Your task to perform on an android device: Go to sound settings Image 0: 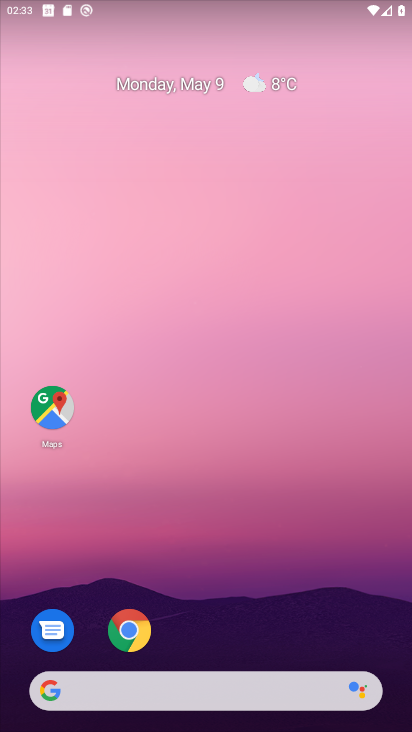
Step 0: drag from (227, 640) to (278, 0)
Your task to perform on an android device: Go to sound settings Image 1: 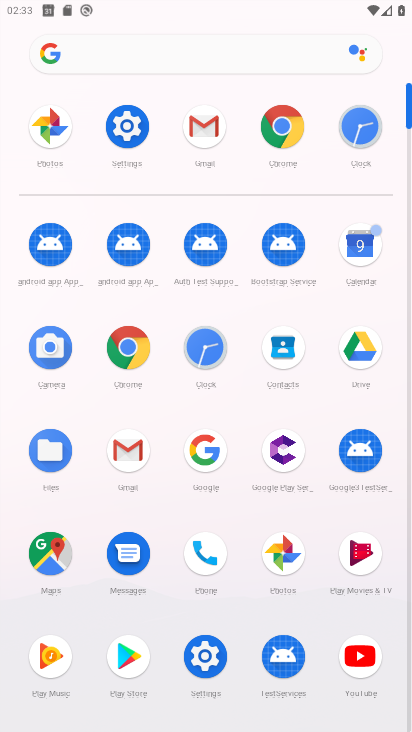
Step 1: click (139, 147)
Your task to perform on an android device: Go to sound settings Image 2: 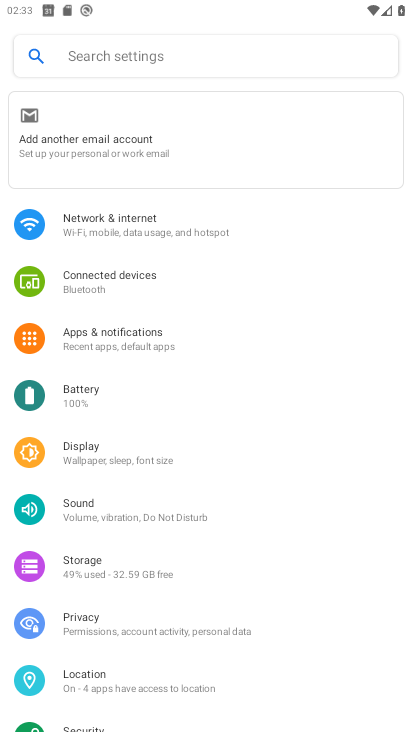
Step 2: click (178, 519)
Your task to perform on an android device: Go to sound settings Image 3: 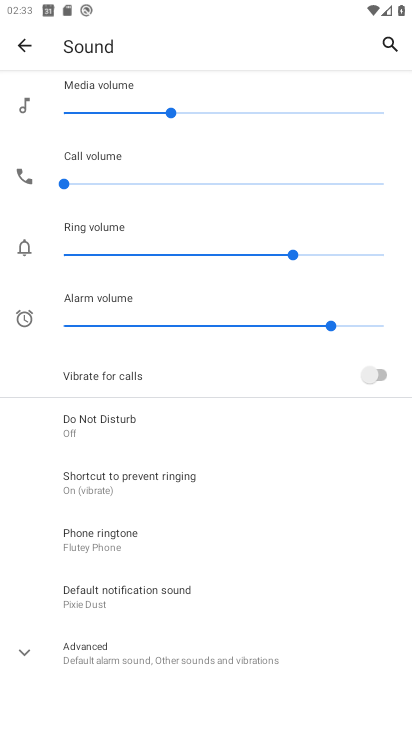
Step 3: task complete